Your task to perform on an android device: Open wifi settings Image 0: 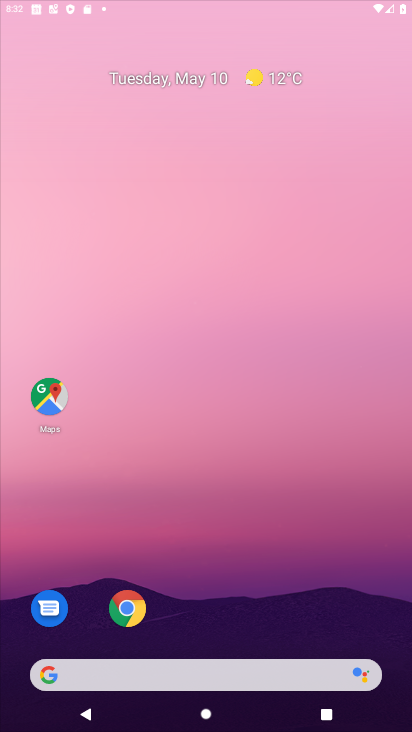
Step 0: press home button
Your task to perform on an android device: Open wifi settings Image 1: 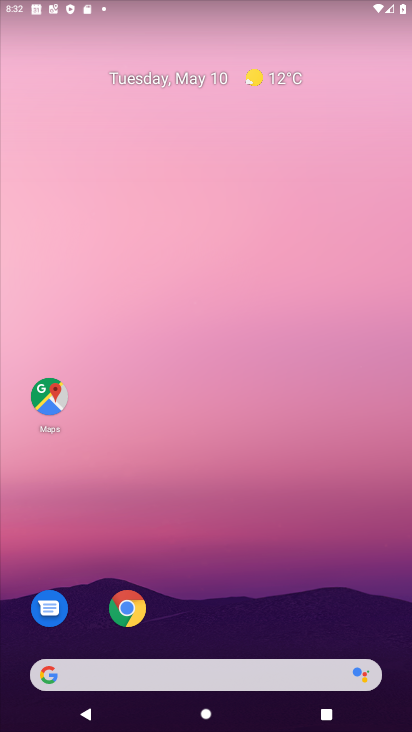
Step 1: drag from (204, 673) to (163, 85)
Your task to perform on an android device: Open wifi settings Image 2: 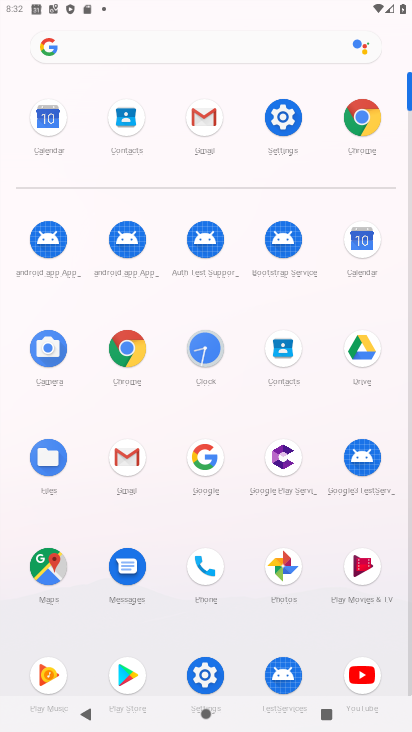
Step 2: click (270, 135)
Your task to perform on an android device: Open wifi settings Image 3: 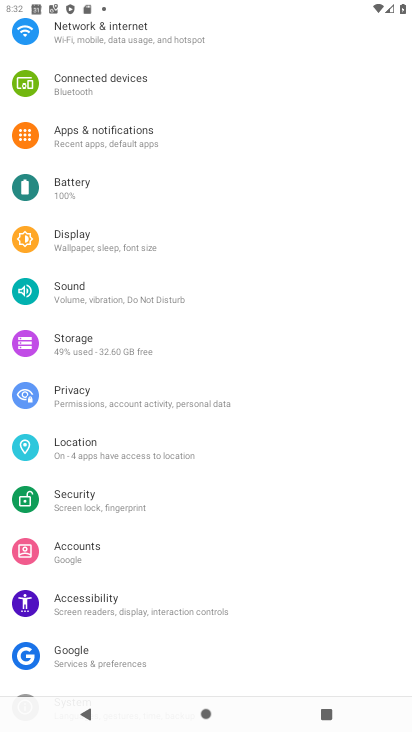
Step 3: drag from (207, 86) to (267, 513)
Your task to perform on an android device: Open wifi settings Image 4: 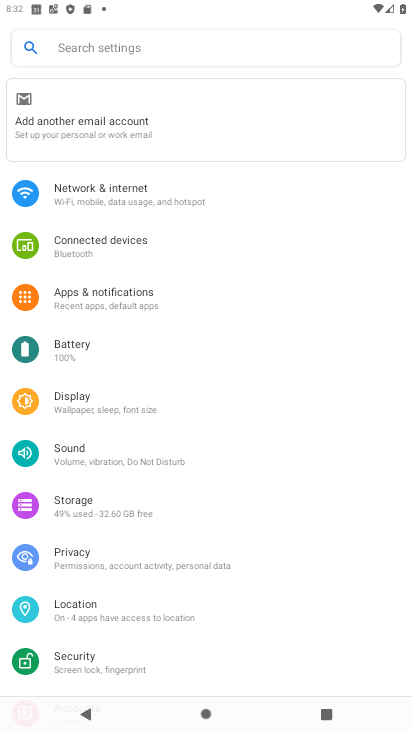
Step 4: click (150, 197)
Your task to perform on an android device: Open wifi settings Image 5: 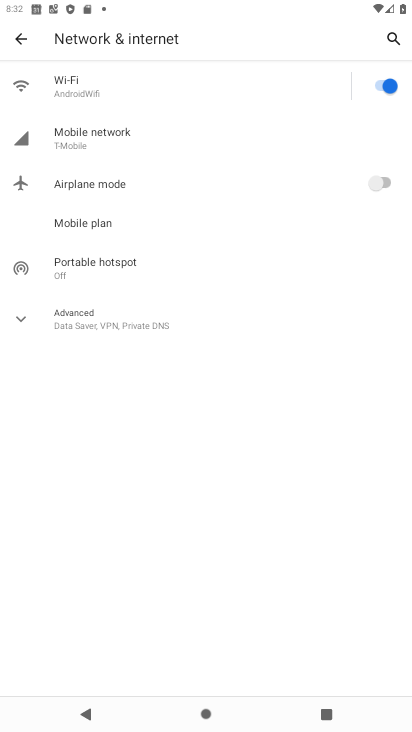
Step 5: click (99, 91)
Your task to perform on an android device: Open wifi settings Image 6: 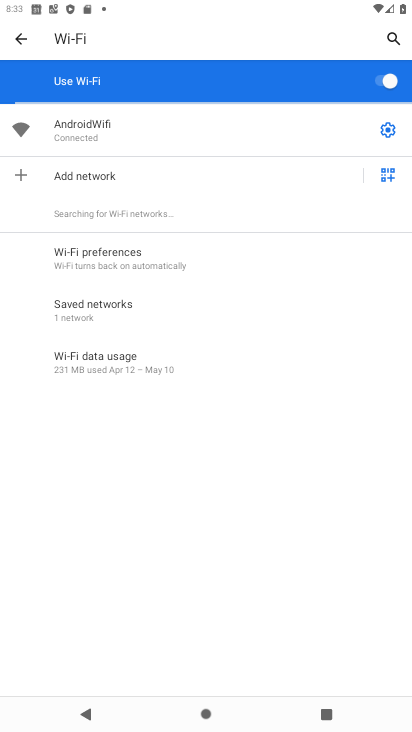
Step 6: task complete